Your task to perform on an android device: see tabs open on other devices in the chrome app Image 0: 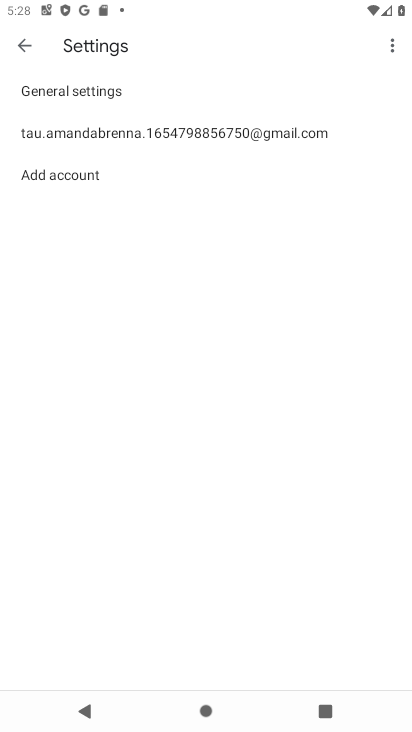
Step 0: press home button
Your task to perform on an android device: see tabs open on other devices in the chrome app Image 1: 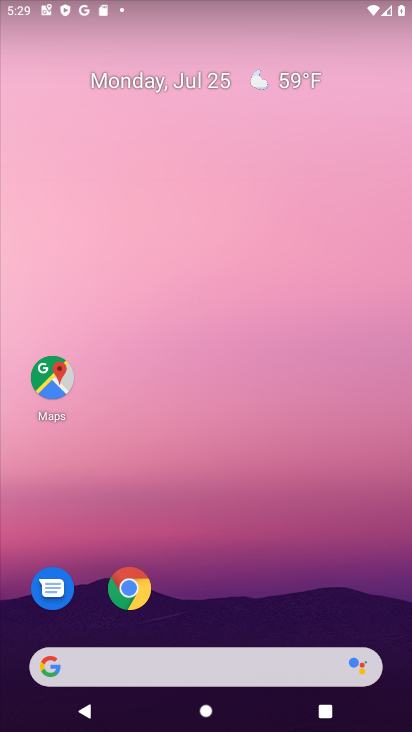
Step 1: click (128, 599)
Your task to perform on an android device: see tabs open on other devices in the chrome app Image 2: 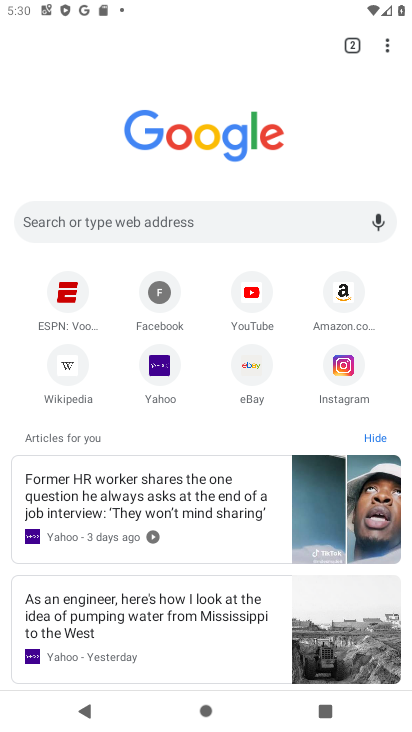
Step 2: press home button
Your task to perform on an android device: see tabs open on other devices in the chrome app Image 3: 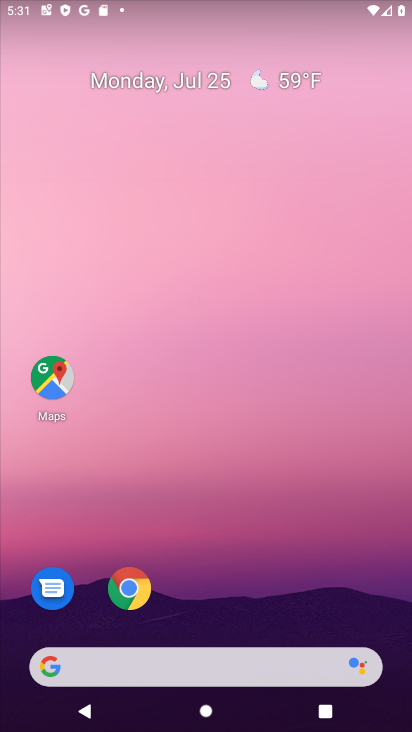
Step 3: click (124, 581)
Your task to perform on an android device: see tabs open on other devices in the chrome app Image 4: 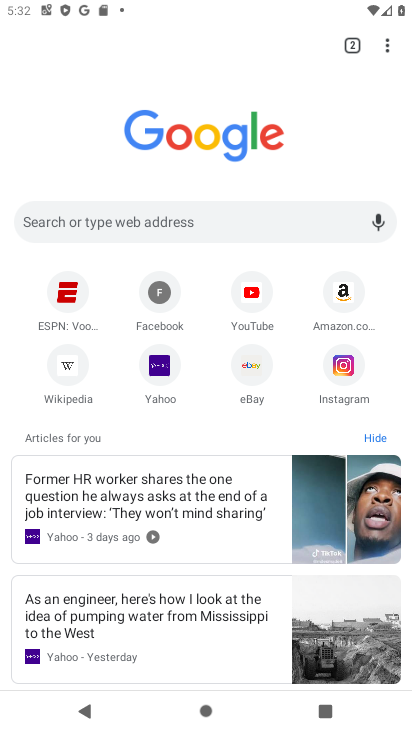
Step 4: click (359, 45)
Your task to perform on an android device: see tabs open on other devices in the chrome app Image 5: 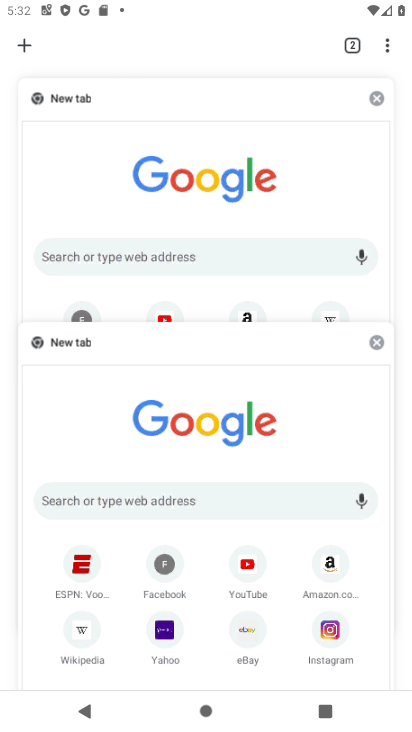
Step 5: task complete